Your task to perform on an android device: open sync settings in chrome Image 0: 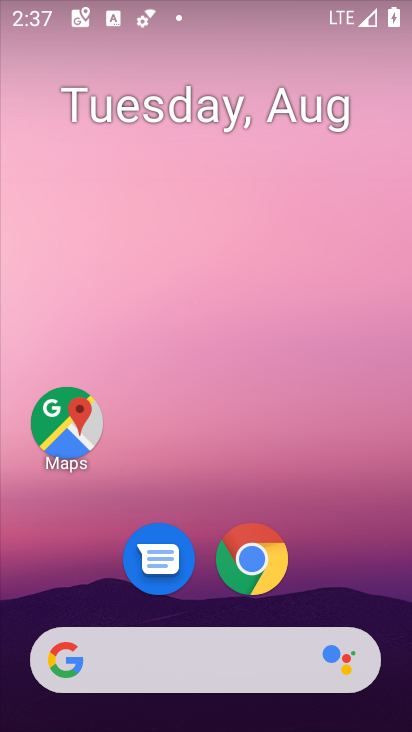
Step 0: click (232, 547)
Your task to perform on an android device: open sync settings in chrome Image 1: 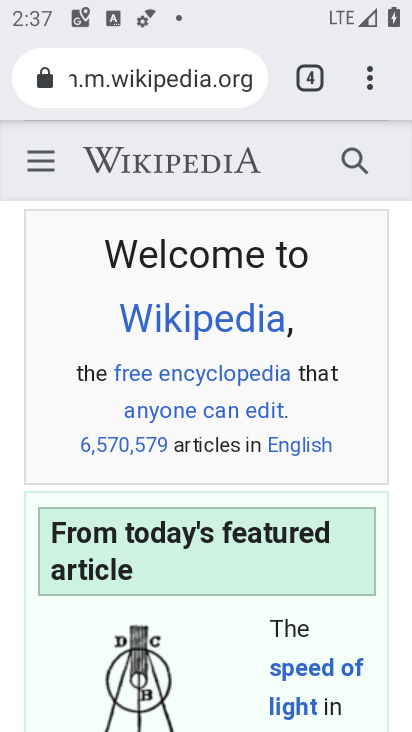
Step 1: click (362, 87)
Your task to perform on an android device: open sync settings in chrome Image 2: 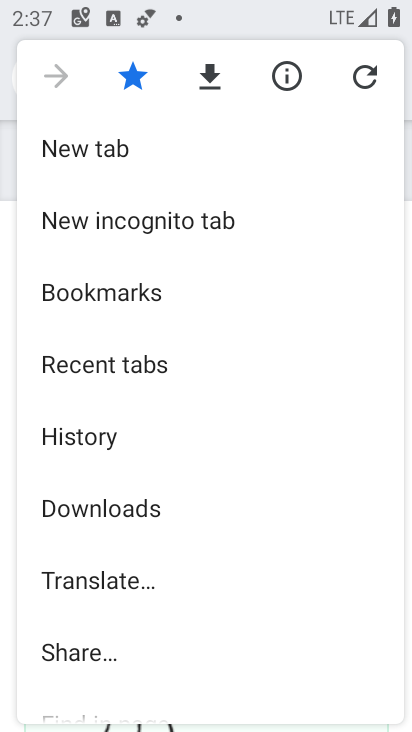
Step 2: drag from (242, 658) to (264, 220)
Your task to perform on an android device: open sync settings in chrome Image 3: 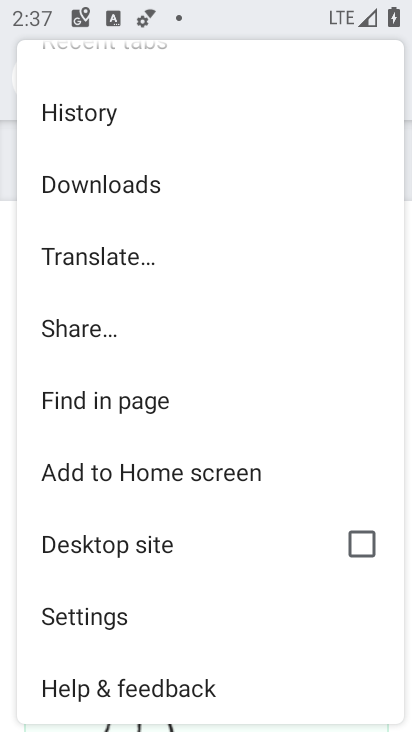
Step 3: click (165, 616)
Your task to perform on an android device: open sync settings in chrome Image 4: 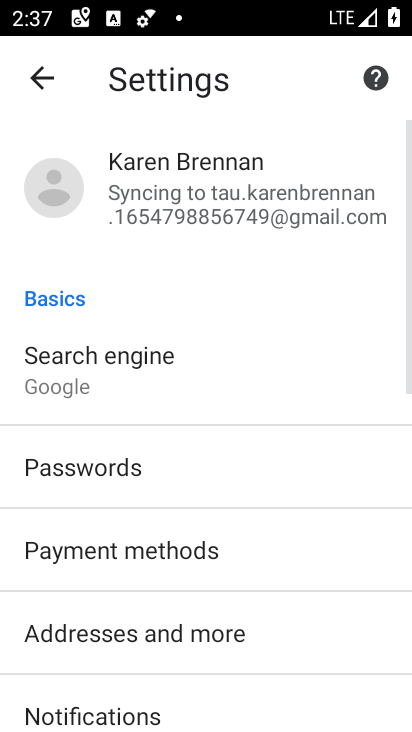
Step 4: click (200, 196)
Your task to perform on an android device: open sync settings in chrome Image 5: 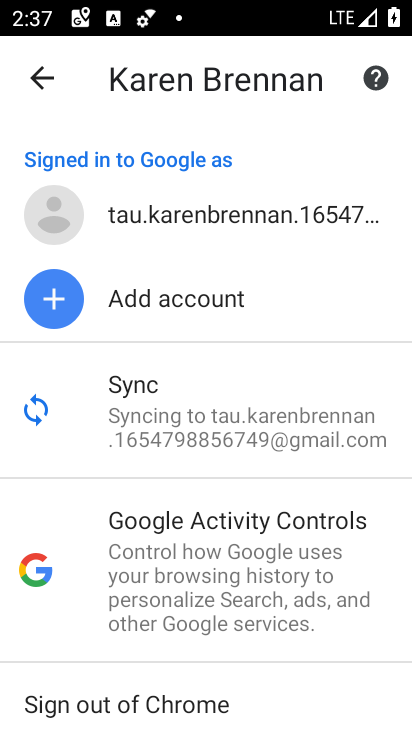
Step 5: click (207, 411)
Your task to perform on an android device: open sync settings in chrome Image 6: 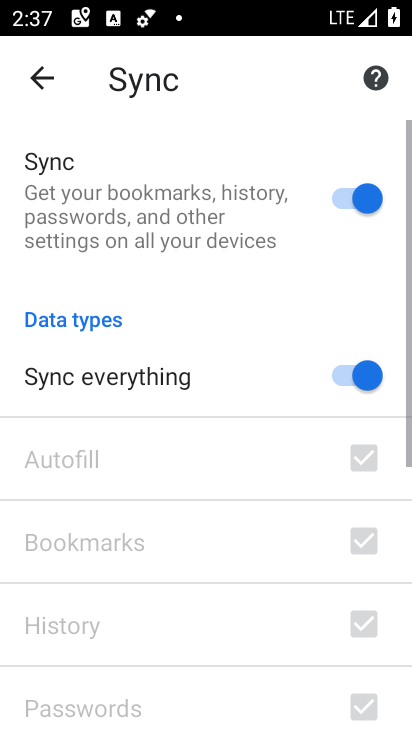
Step 6: task complete